Your task to perform on an android device: clear all cookies in the chrome app Image 0: 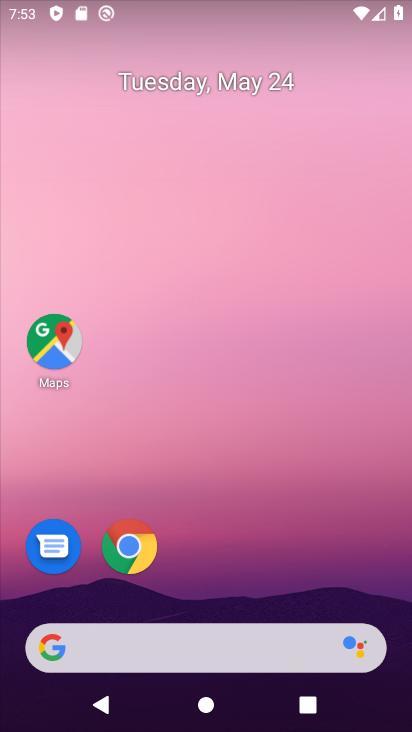
Step 0: click (139, 536)
Your task to perform on an android device: clear all cookies in the chrome app Image 1: 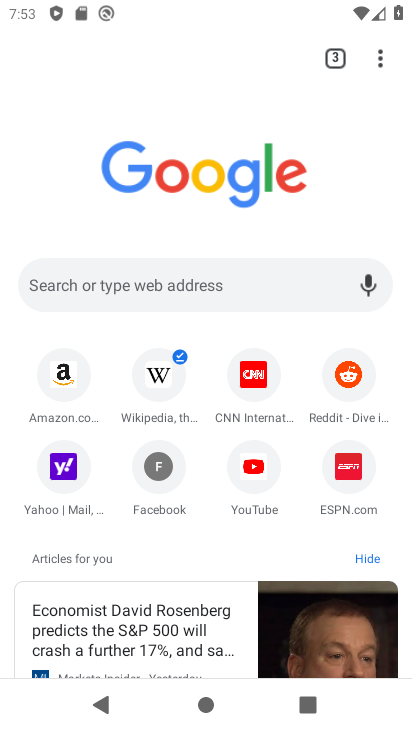
Step 1: click (378, 63)
Your task to perform on an android device: clear all cookies in the chrome app Image 2: 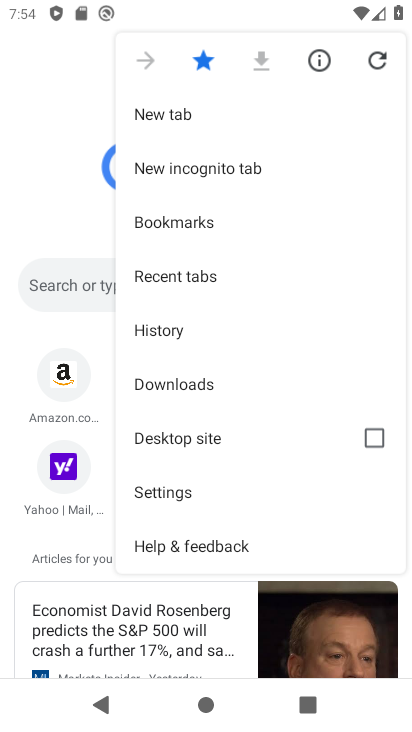
Step 2: click (191, 492)
Your task to perform on an android device: clear all cookies in the chrome app Image 3: 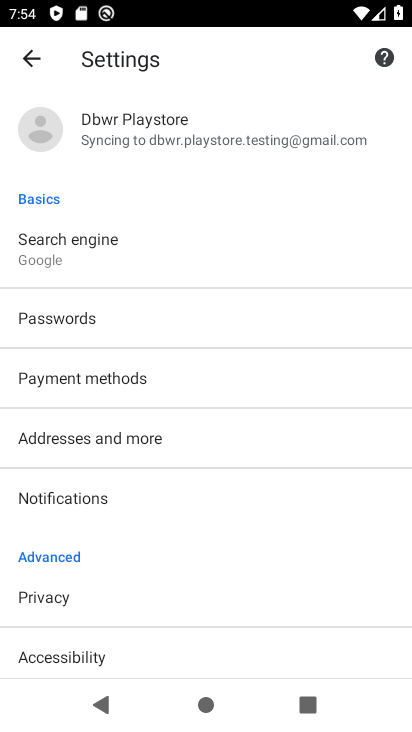
Step 3: click (167, 599)
Your task to perform on an android device: clear all cookies in the chrome app Image 4: 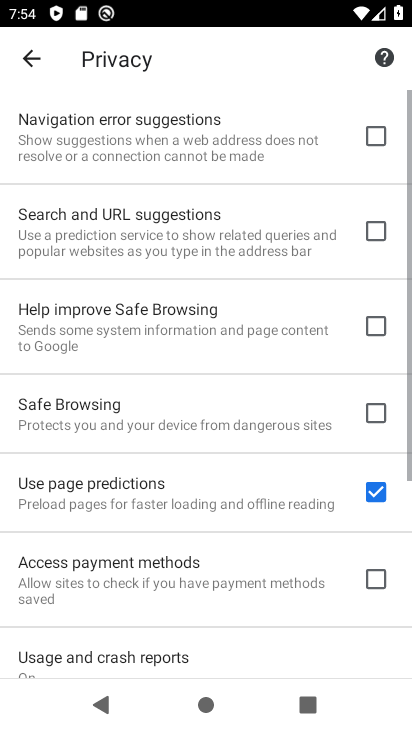
Step 4: drag from (167, 598) to (232, 20)
Your task to perform on an android device: clear all cookies in the chrome app Image 5: 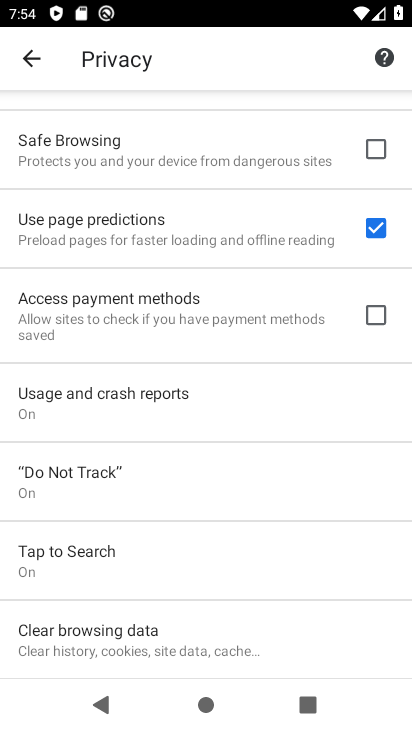
Step 5: click (156, 637)
Your task to perform on an android device: clear all cookies in the chrome app Image 6: 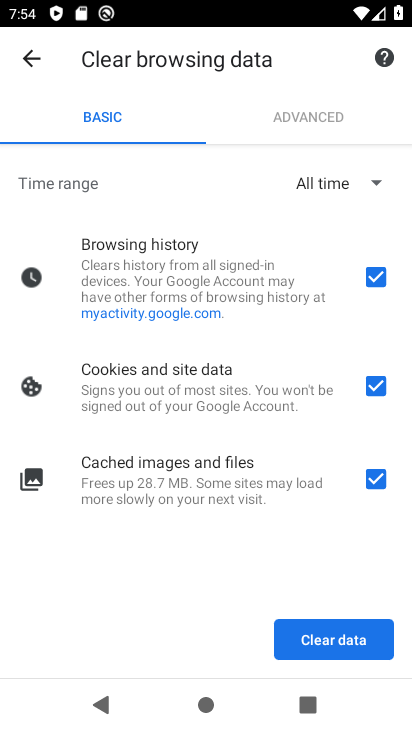
Step 6: click (379, 472)
Your task to perform on an android device: clear all cookies in the chrome app Image 7: 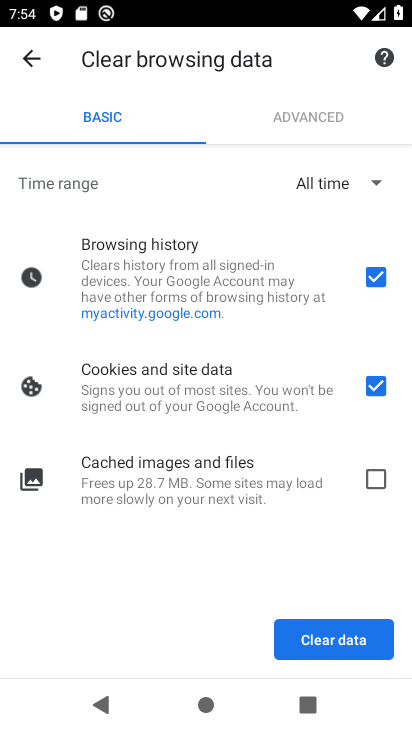
Step 7: click (378, 263)
Your task to perform on an android device: clear all cookies in the chrome app Image 8: 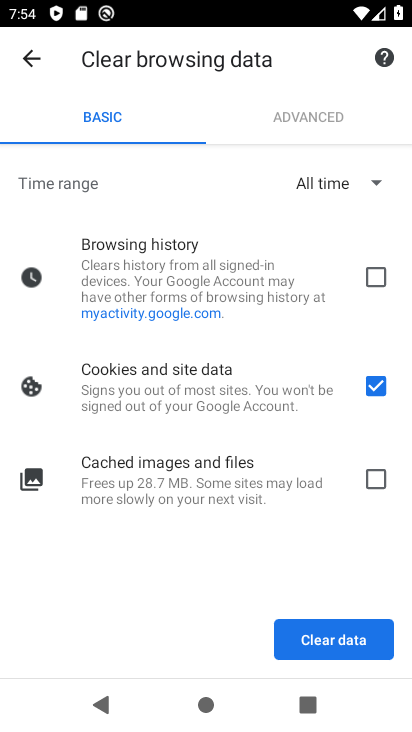
Step 8: click (345, 640)
Your task to perform on an android device: clear all cookies in the chrome app Image 9: 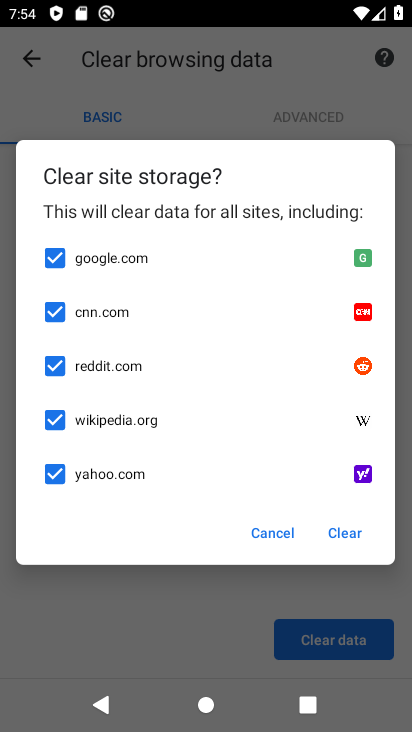
Step 9: click (350, 523)
Your task to perform on an android device: clear all cookies in the chrome app Image 10: 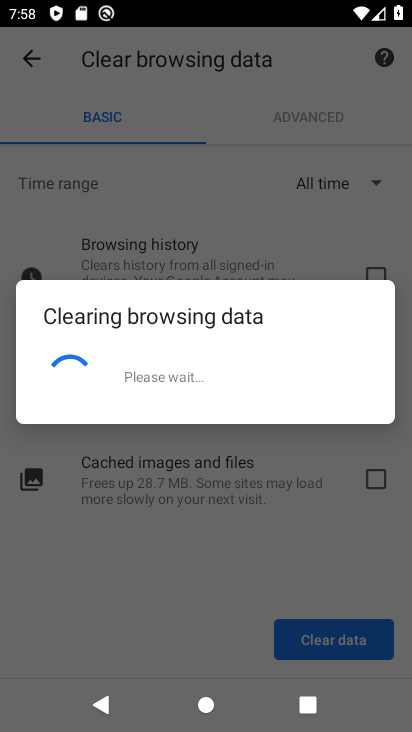
Step 10: task complete